Your task to perform on an android device: turn off airplane mode Image 0: 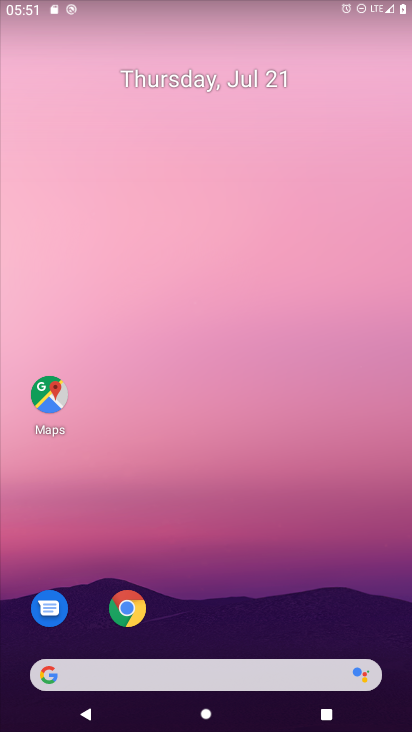
Step 0: drag from (334, 679) to (334, 102)
Your task to perform on an android device: turn off airplane mode Image 1: 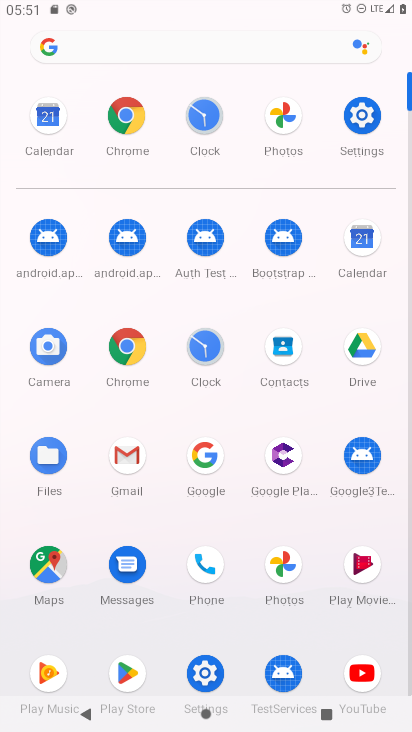
Step 1: click (369, 109)
Your task to perform on an android device: turn off airplane mode Image 2: 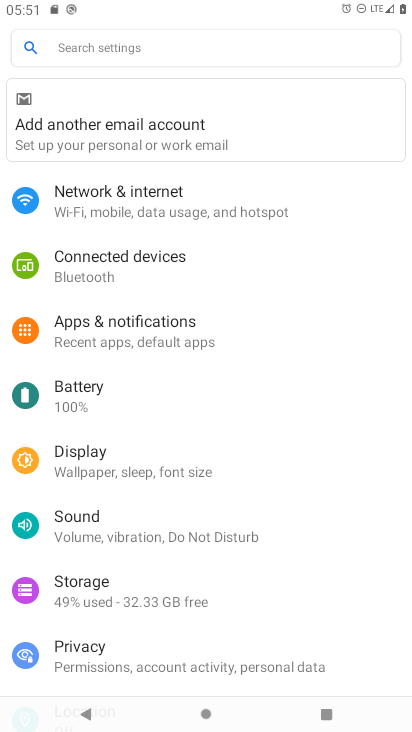
Step 2: click (182, 186)
Your task to perform on an android device: turn off airplane mode Image 3: 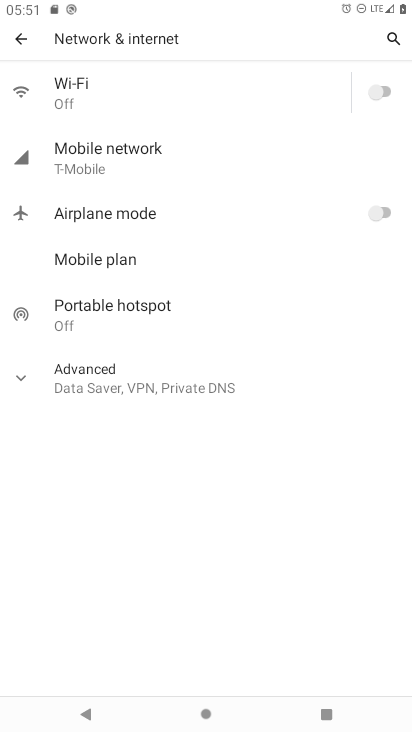
Step 3: task complete